Your task to perform on an android device: Open battery settings Image 0: 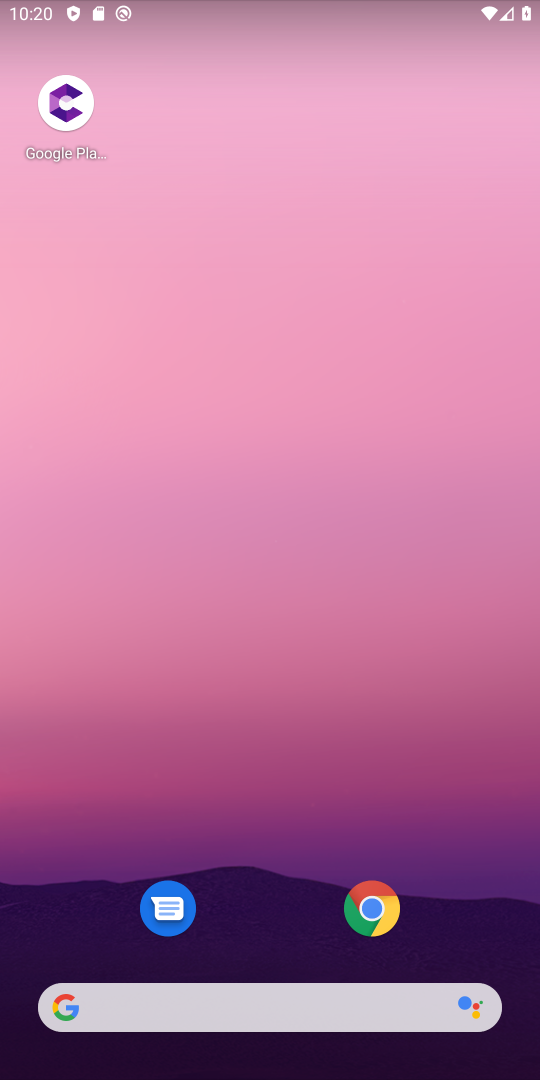
Step 0: drag from (258, 5) to (283, 932)
Your task to perform on an android device: Open battery settings Image 1: 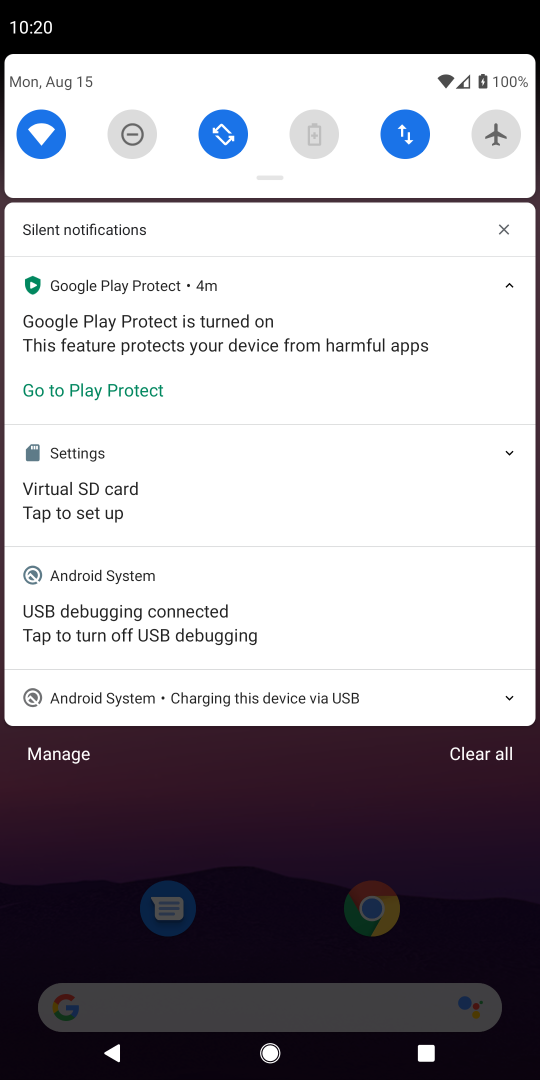
Step 1: click (319, 140)
Your task to perform on an android device: Open battery settings Image 2: 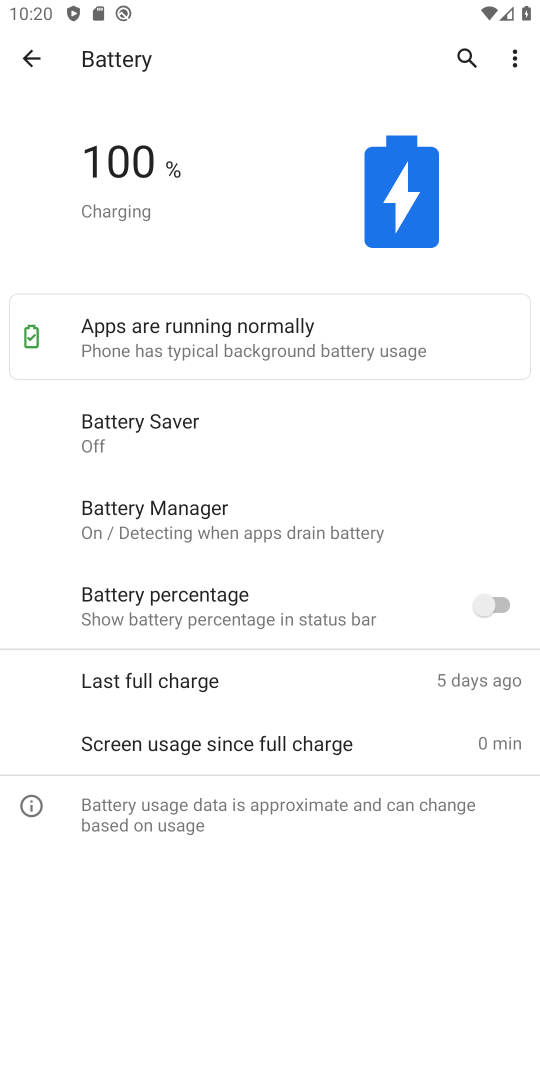
Step 2: task complete